Your task to perform on an android device: Open calendar and show me the fourth week of next month Image 0: 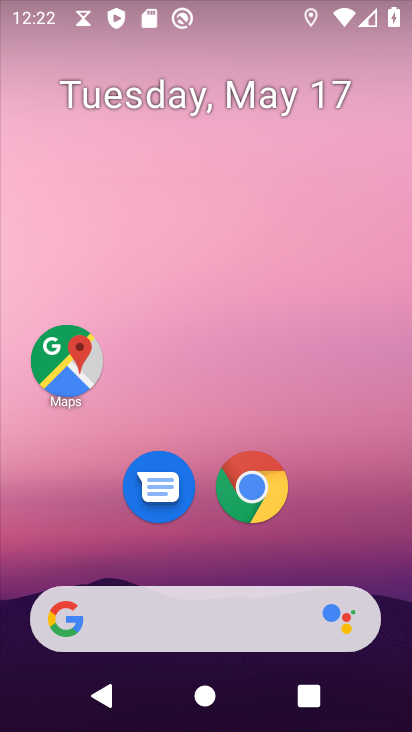
Step 0: drag from (343, 535) to (275, 47)
Your task to perform on an android device: Open calendar and show me the fourth week of next month Image 1: 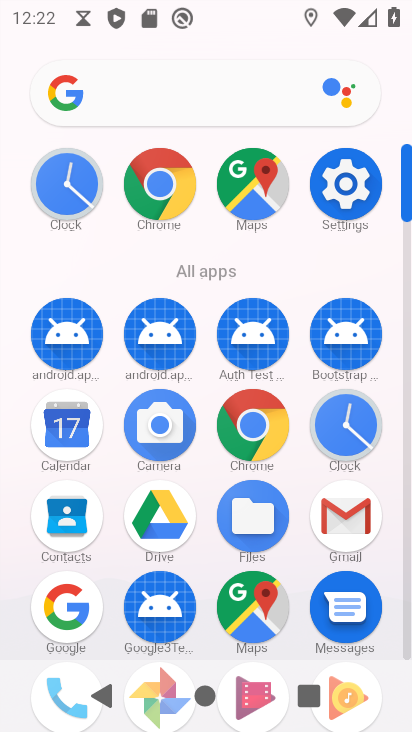
Step 1: drag from (14, 543) to (13, 221)
Your task to perform on an android device: Open calendar and show me the fourth week of next month Image 2: 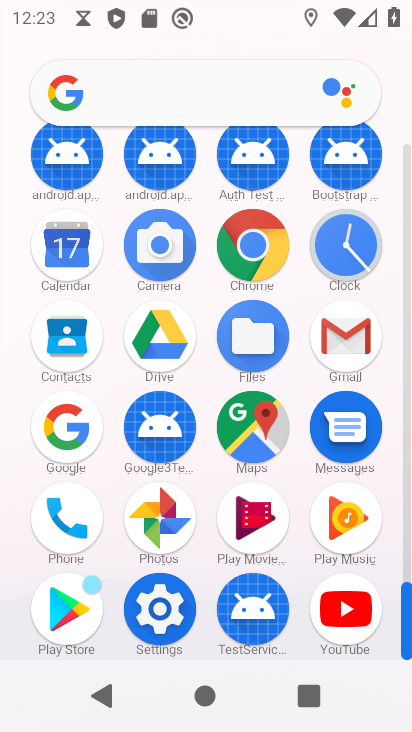
Step 2: click (65, 239)
Your task to perform on an android device: Open calendar and show me the fourth week of next month Image 3: 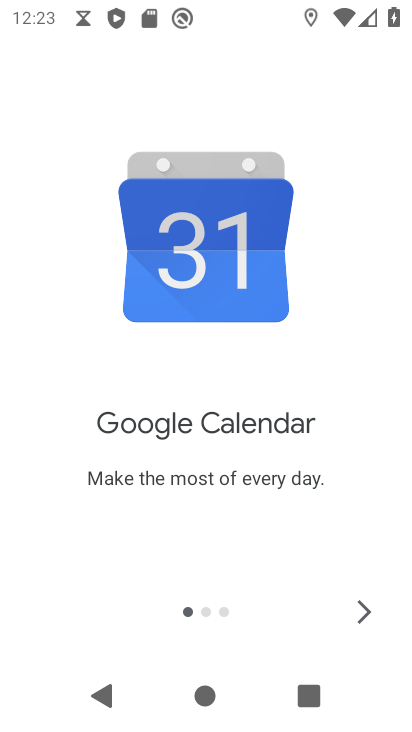
Step 3: click (355, 608)
Your task to perform on an android device: Open calendar and show me the fourth week of next month Image 4: 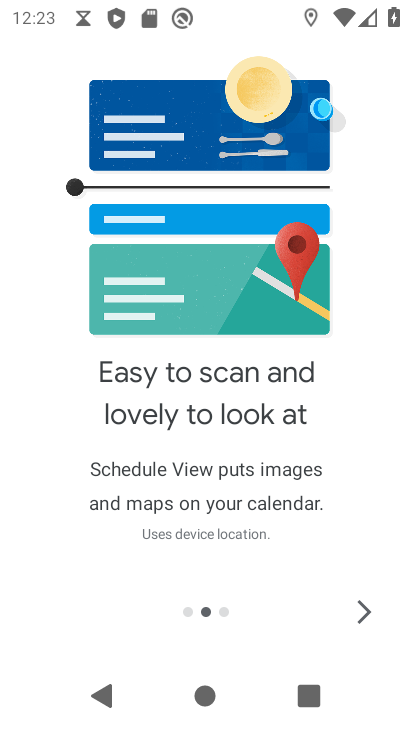
Step 4: click (356, 607)
Your task to perform on an android device: Open calendar and show me the fourth week of next month Image 5: 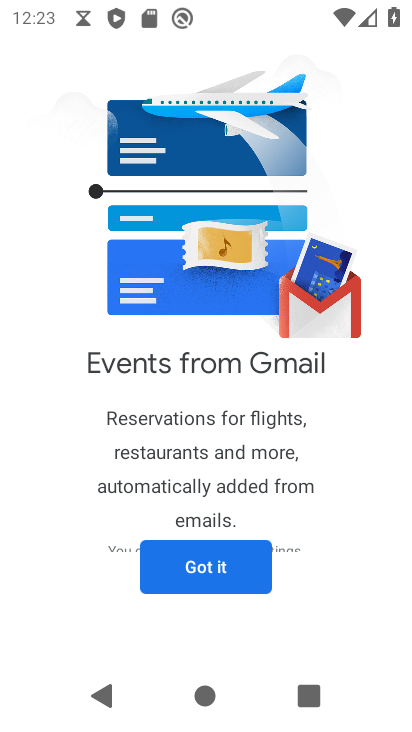
Step 5: click (356, 607)
Your task to perform on an android device: Open calendar and show me the fourth week of next month Image 6: 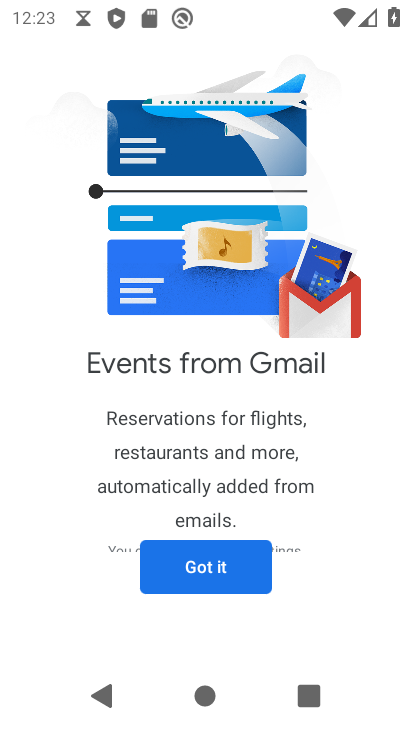
Step 6: click (235, 564)
Your task to perform on an android device: Open calendar and show me the fourth week of next month Image 7: 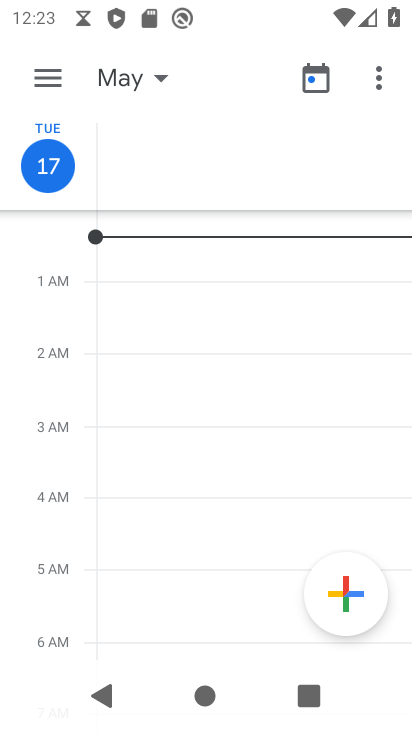
Step 7: click (144, 77)
Your task to perform on an android device: Open calendar and show me the fourth week of next month Image 8: 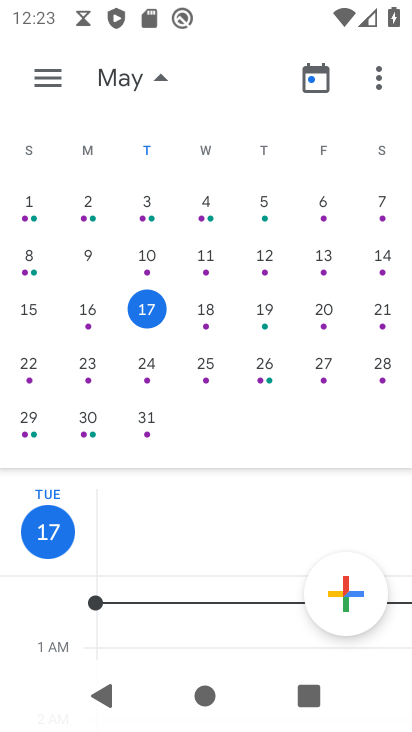
Step 8: drag from (358, 250) to (0, 246)
Your task to perform on an android device: Open calendar and show me the fourth week of next month Image 9: 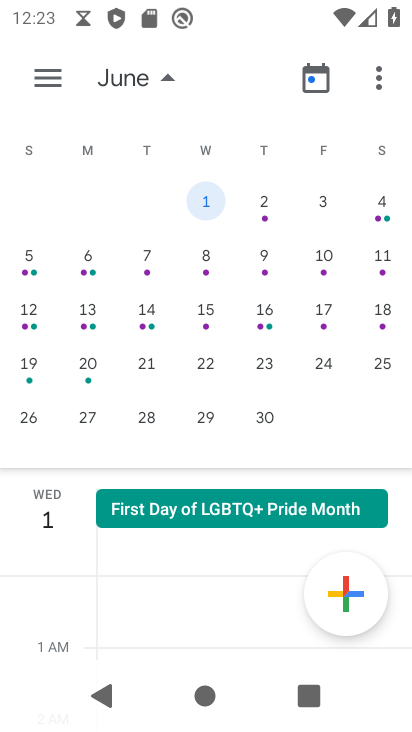
Step 9: click (28, 358)
Your task to perform on an android device: Open calendar and show me the fourth week of next month Image 10: 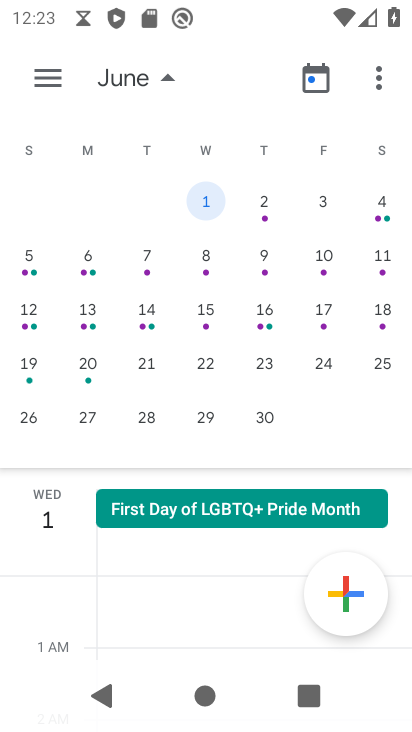
Step 10: click (31, 359)
Your task to perform on an android device: Open calendar and show me the fourth week of next month Image 11: 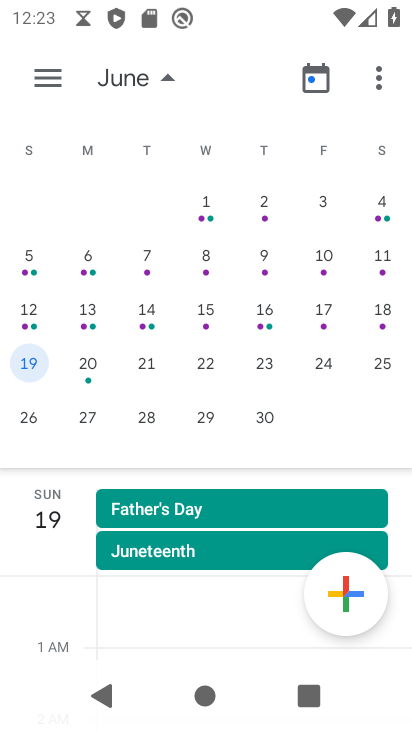
Step 11: click (44, 76)
Your task to perform on an android device: Open calendar and show me the fourth week of next month Image 12: 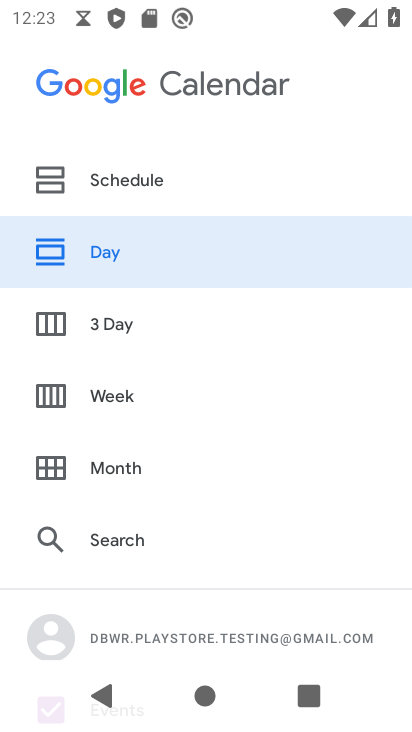
Step 12: click (129, 390)
Your task to perform on an android device: Open calendar and show me the fourth week of next month Image 13: 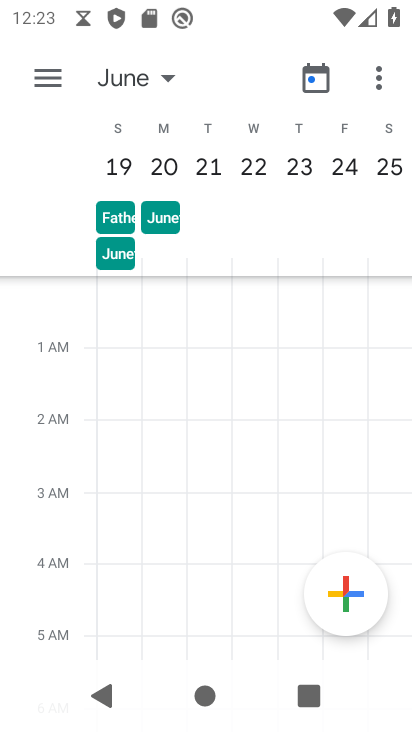
Step 13: task complete